Your task to perform on an android device: Open Amazon Image 0: 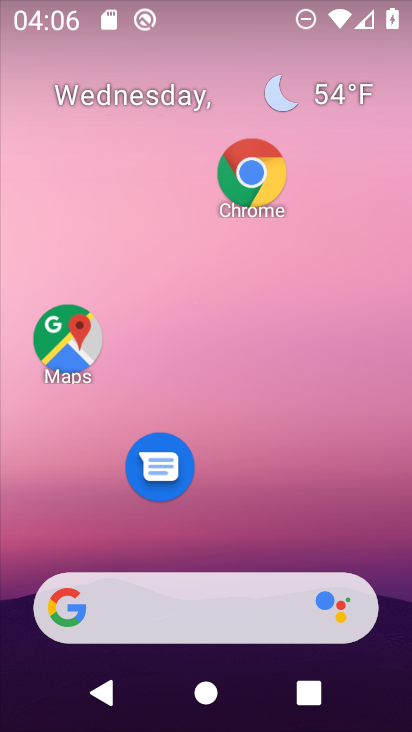
Step 0: press back button
Your task to perform on an android device: Open Amazon Image 1: 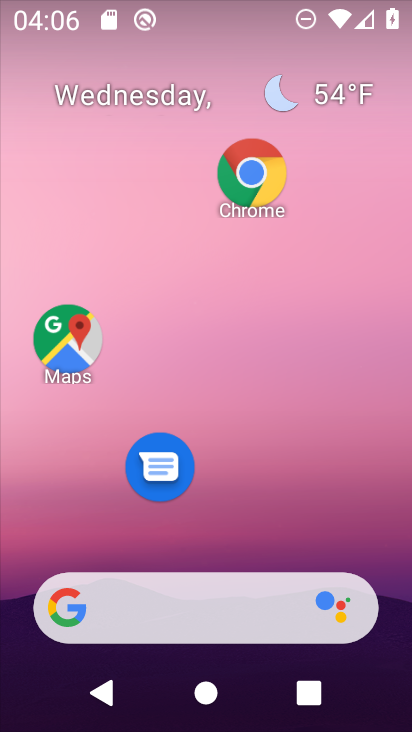
Step 1: drag from (240, 568) to (240, 245)
Your task to perform on an android device: Open Amazon Image 2: 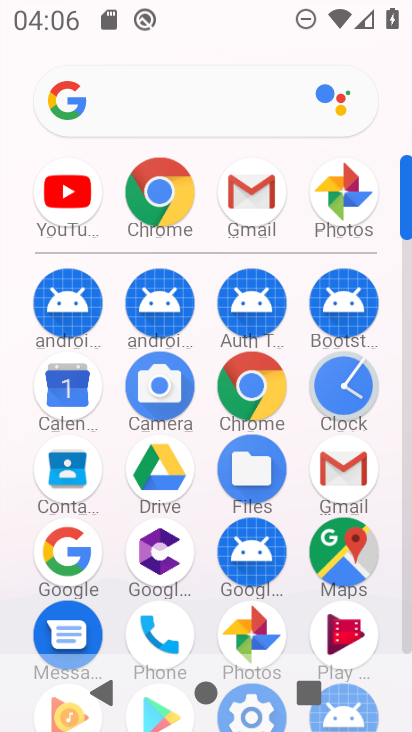
Step 2: click (138, 179)
Your task to perform on an android device: Open Amazon Image 3: 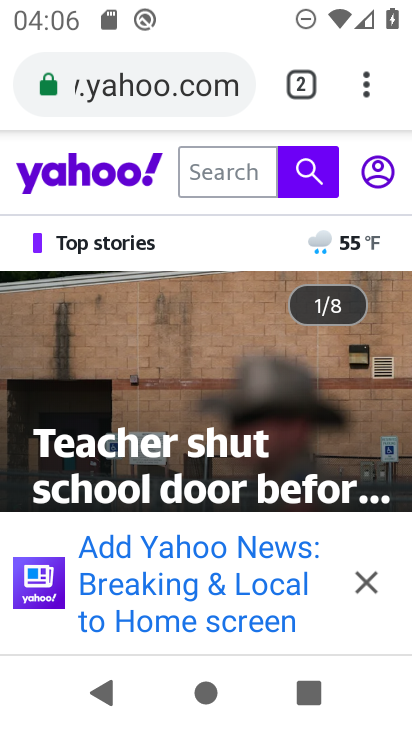
Step 3: click (305, 91)
Your task to perform on an android device: Open Amazon Image 4: 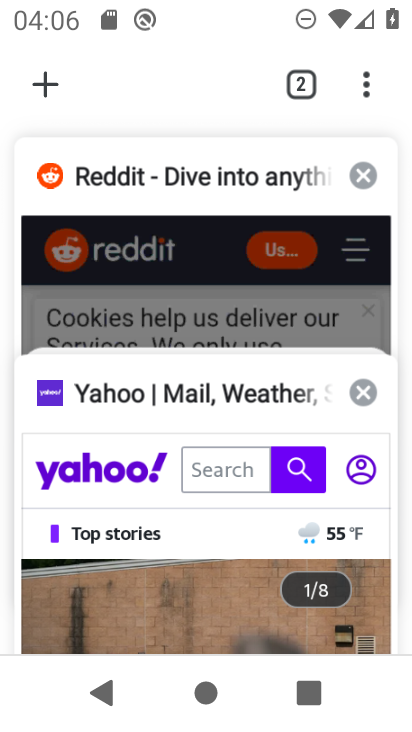
Step 4: click (49, 68)
Your task to perform on an android device: Open Amazon Image 5: 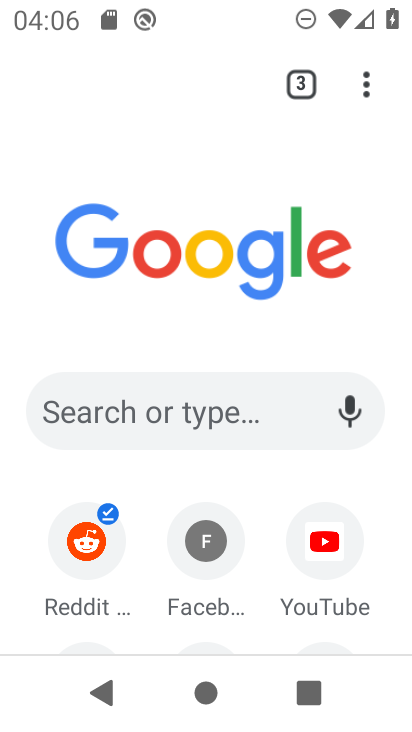
Step 5: drag from (203, 591) to (220, 289)
Your task to perform on an android device: Open Amazon Image 6: 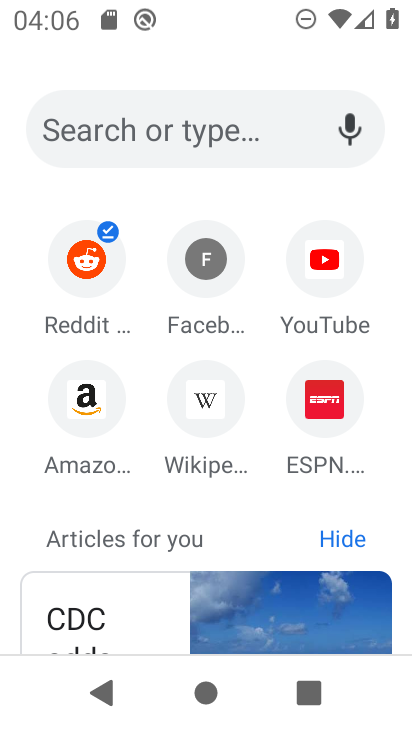
Step 6: click (79, 386)
Your task to perform on an android device: Open Amazon Image 7: 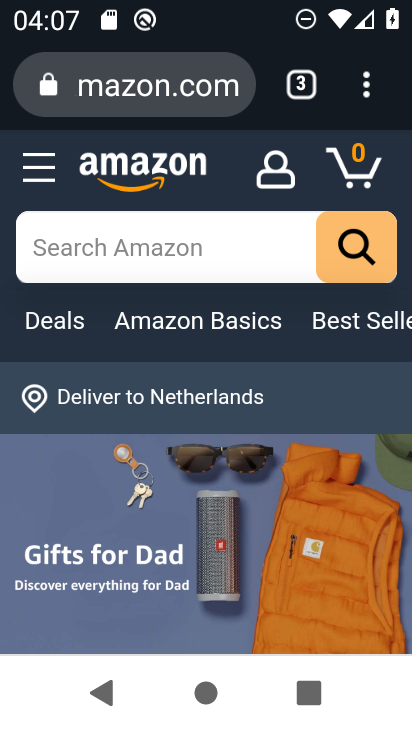
Step 7: task complete